Your task to perform on an android device: Open accessibility settings Image 0: 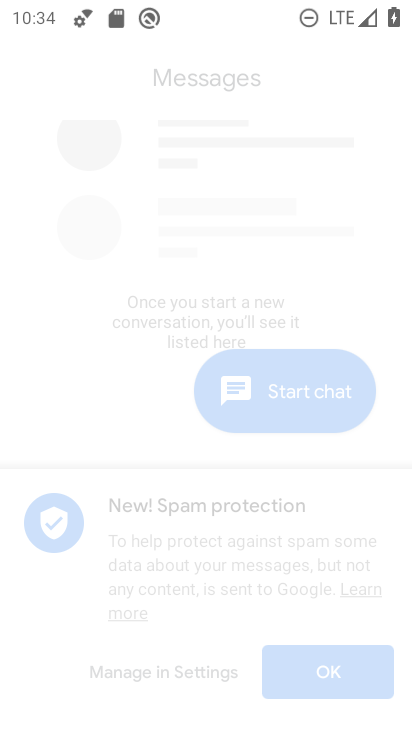
Step 0: drag from (390, 638) to (383, 400)
Your task to perform on an android device: Open accessibility settings Image 1: 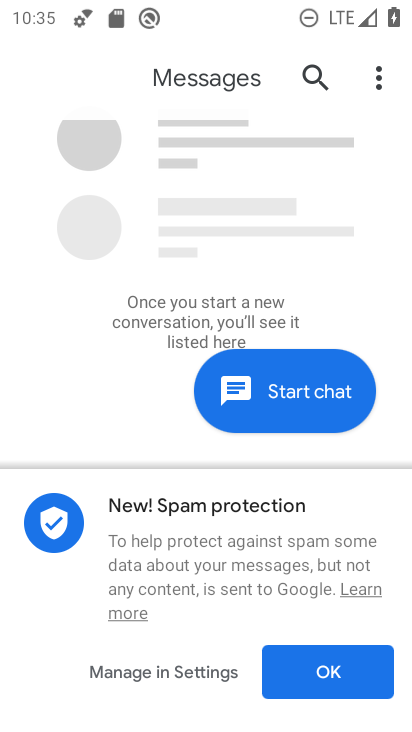
Step 1: press home button
Your task to perform on an android device: Open accessibility settings Image 2: 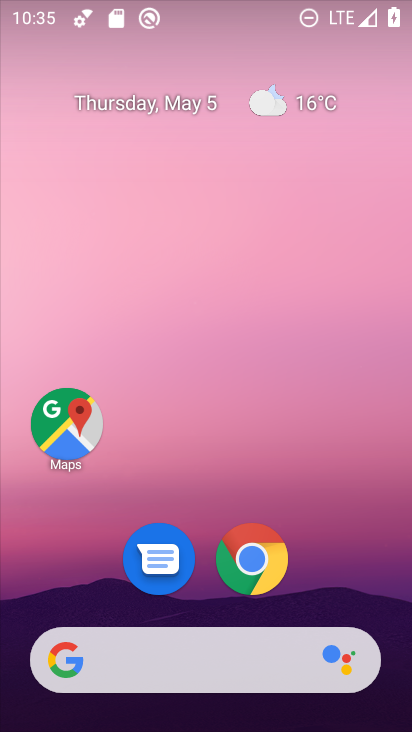
Step 2: drag from (384, 610) to (358, 90)
Your task to perform on an android device: Open accessibility settings Image 3: 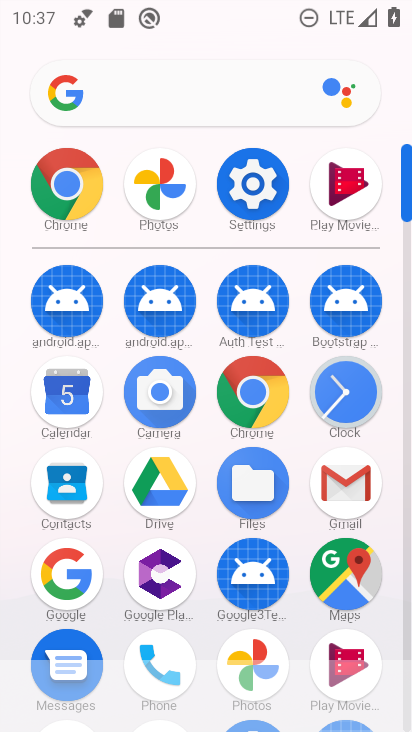
Step 3: click (249, 204)
Your task to perform on an android device: Open accessibility settings Image 4: 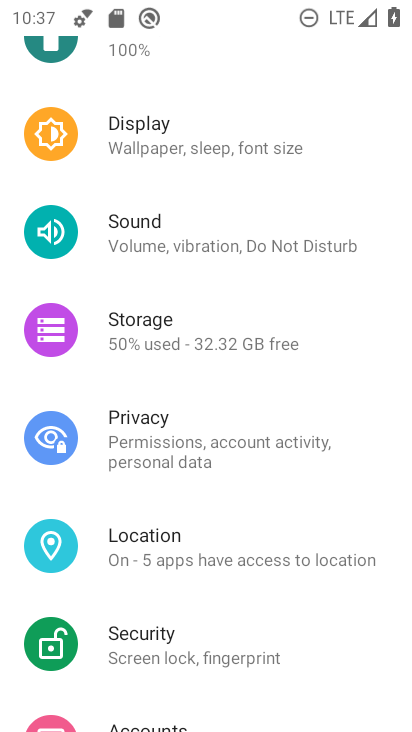
Step 4: drag from (217, 579) to (252, 194)
Your task to perform on an android device: Open accessibility settings Image 5: 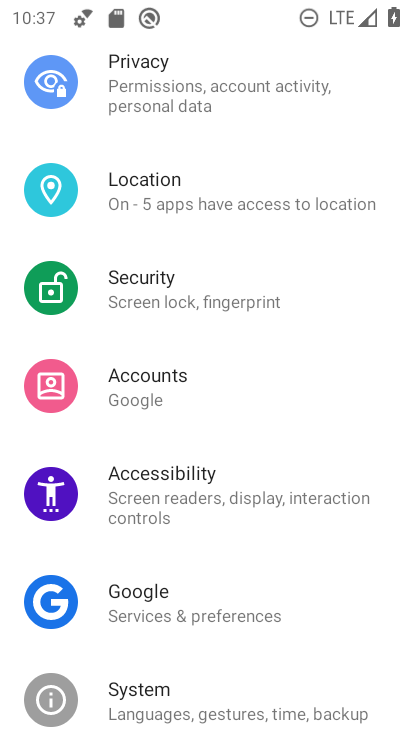
Step 5: click (184, 504)
Your task to perform on an android device: Open accessibility settings Image 6: 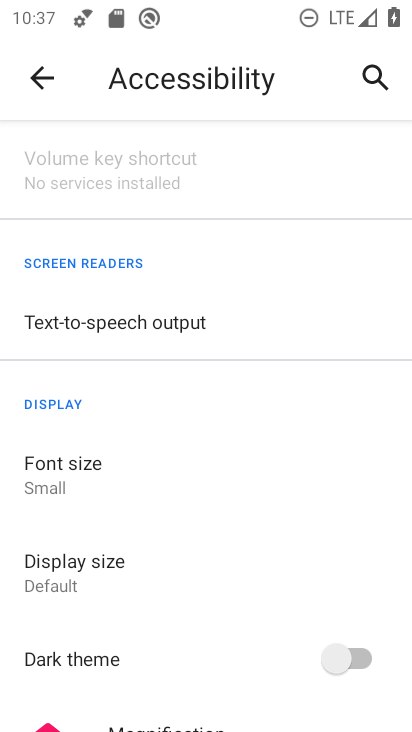
Step 6: task complete